Your task to perform on an android device: allow cookies in the chrome app Image 0: 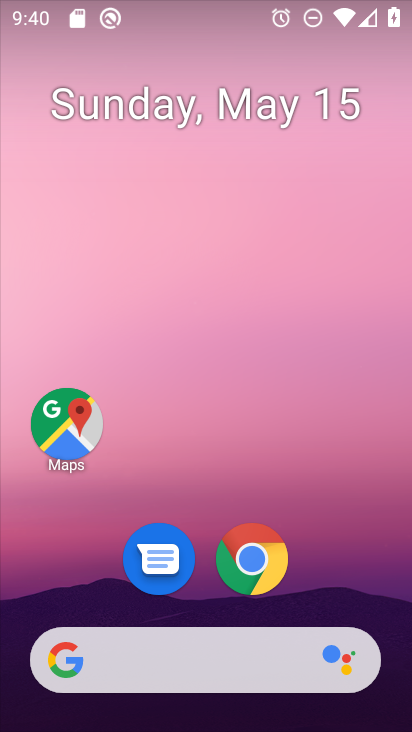
Step 0: click (273, 589)
Your task to perform on an android device: allow cookies in the chrome app Image 1: 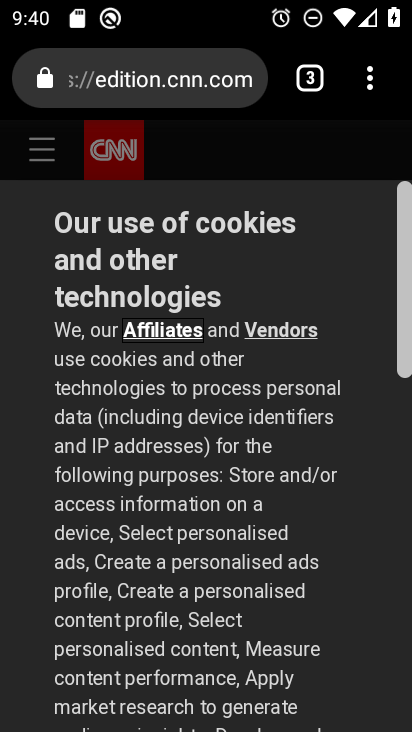
Step 1: click (383, 77)
Your task to perform on an android device: allow cookies in the chrome app Image 2: 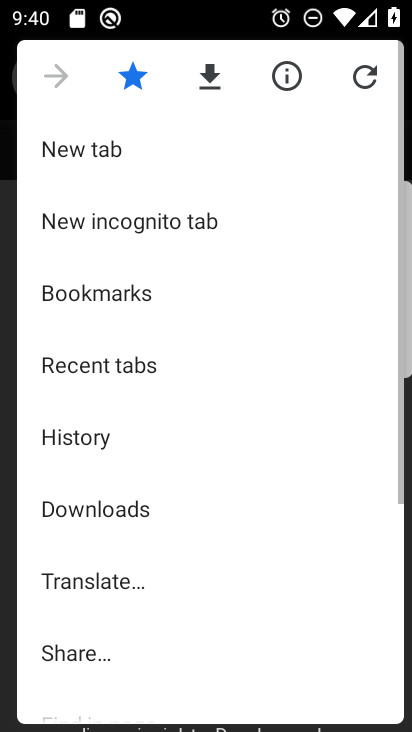
Step 2: drag from (154, 659) to (205, 275)
Your task to perform on an android device: allow cookies in the chrome app Image 3: 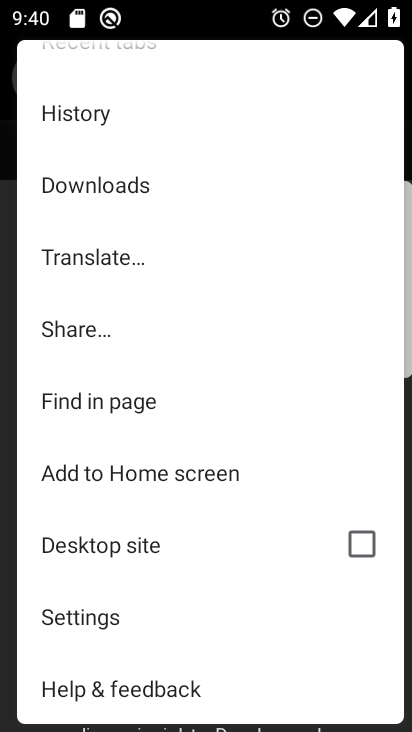
Step 3: click (172, 630)
Your task to perform on an android device: allow cookies in the chrome app Image 4: 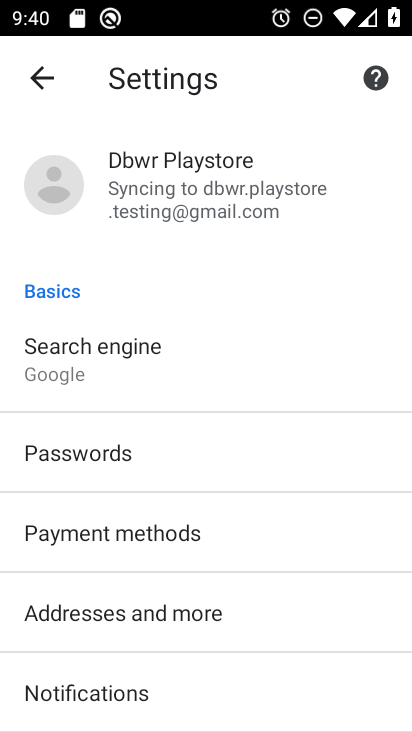
Step 4: drag from (167, 636) to (171, 261)
Your task to perform on an android device: allow cookies in the chrome app Image 5: 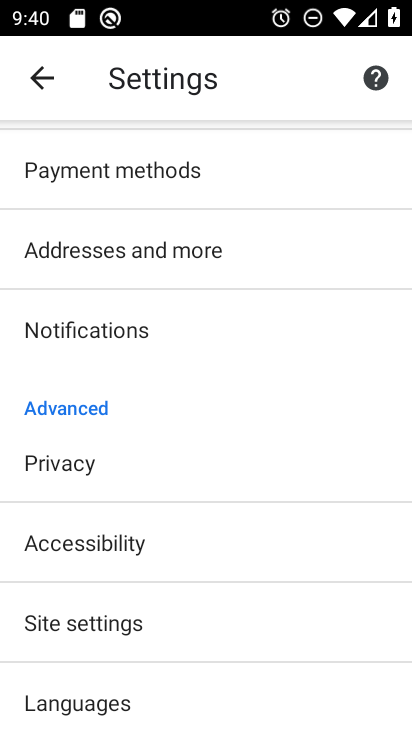
Step 5: click (175, 648)
Your task to perform on an android device: allow cookies in the chrome app Image 6: 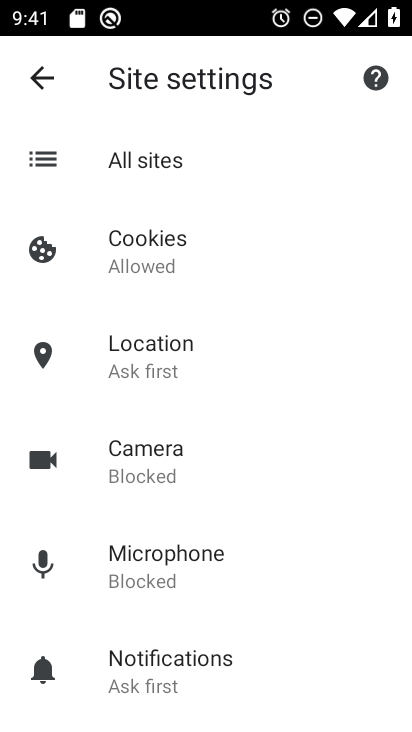
Step 6: click (257, 270)
Your task to perform on an android device: allow cookies in the chrome app Image 7: 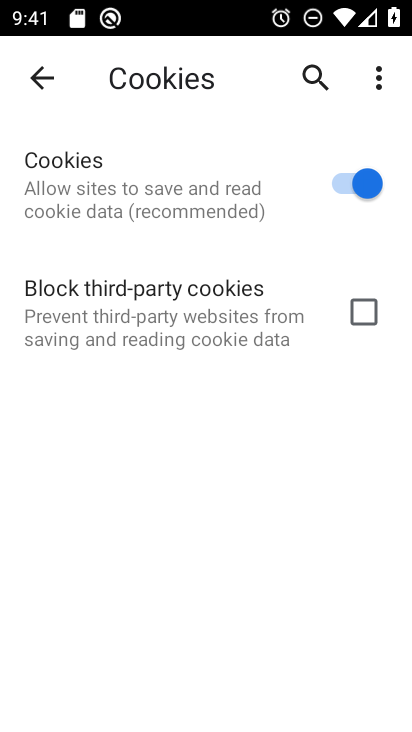
Step 7: task complete